Your task to perform on an android device: What's the news in Colombia? Image 0: 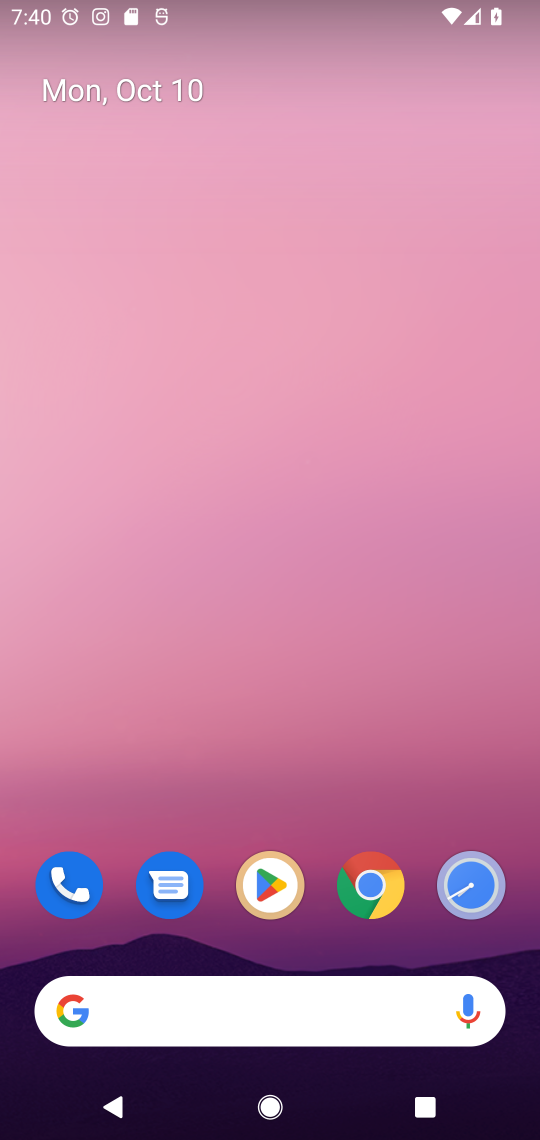
Step 0: click (365, 906)
Your task to perform on an android device: What's the news in Colombia? Image 1: 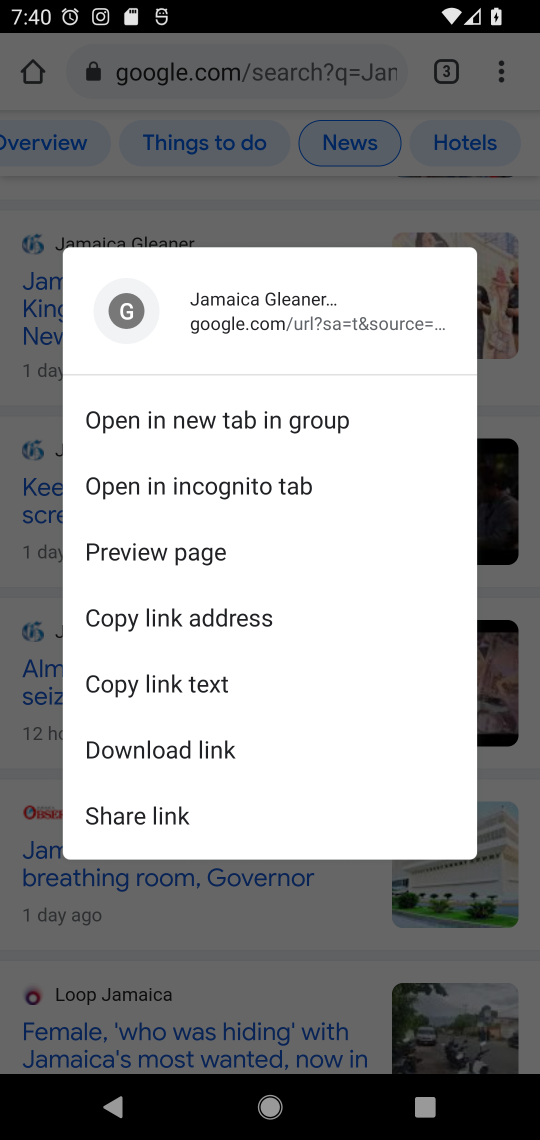
Step 1: click (281, 954)
Your task to perform on an android device: What's the news in Colombia? Image 2: 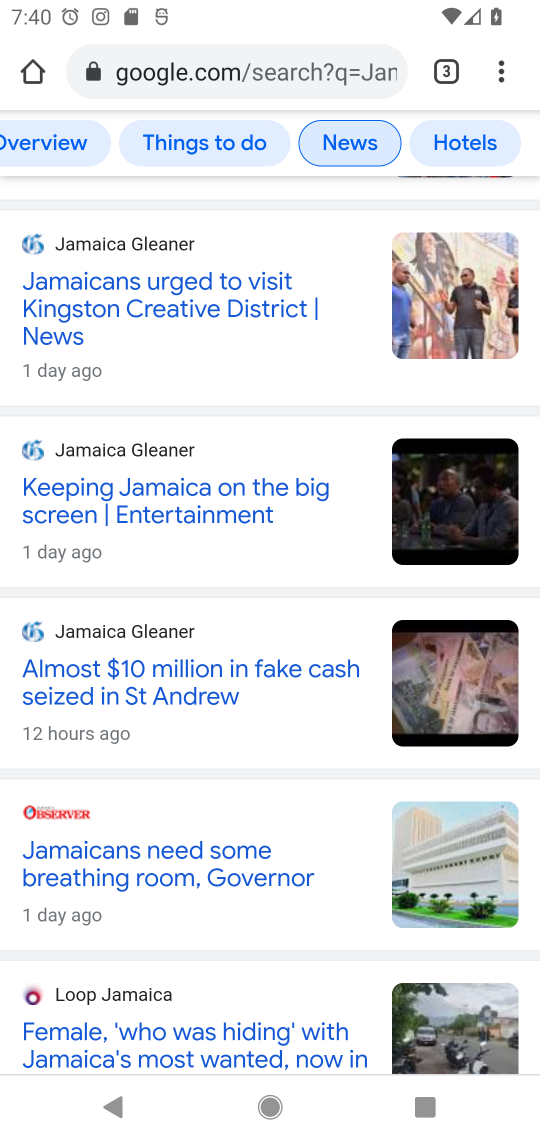
Step 2: click (225, 71)
Your task to perform on an android device: What's the news in Colombia? Image 3: 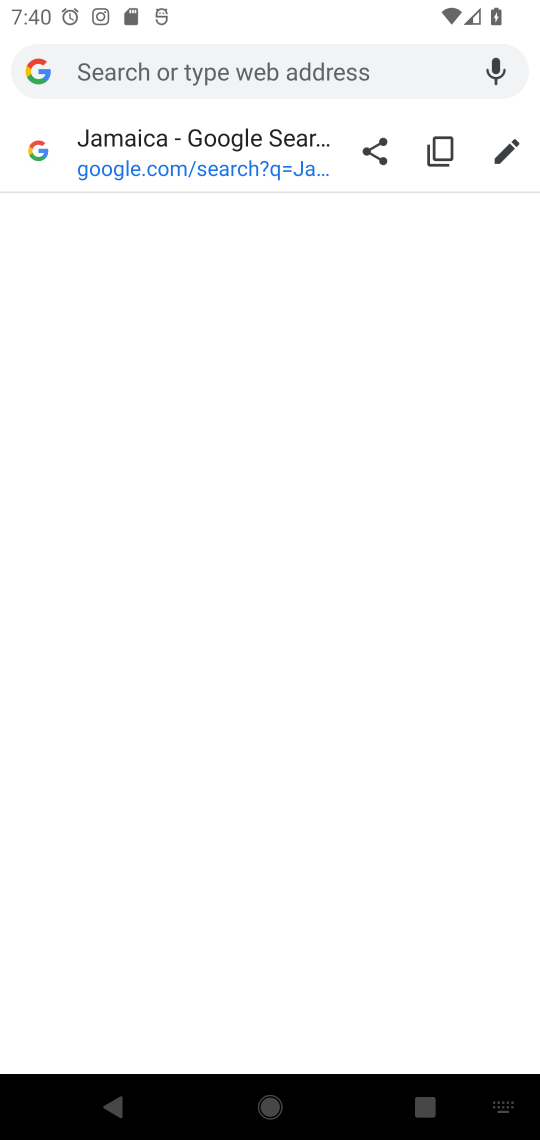
Step 3: type "Colombia"
Your task to perform on an android device: What's the news in Colombia? Image 4: 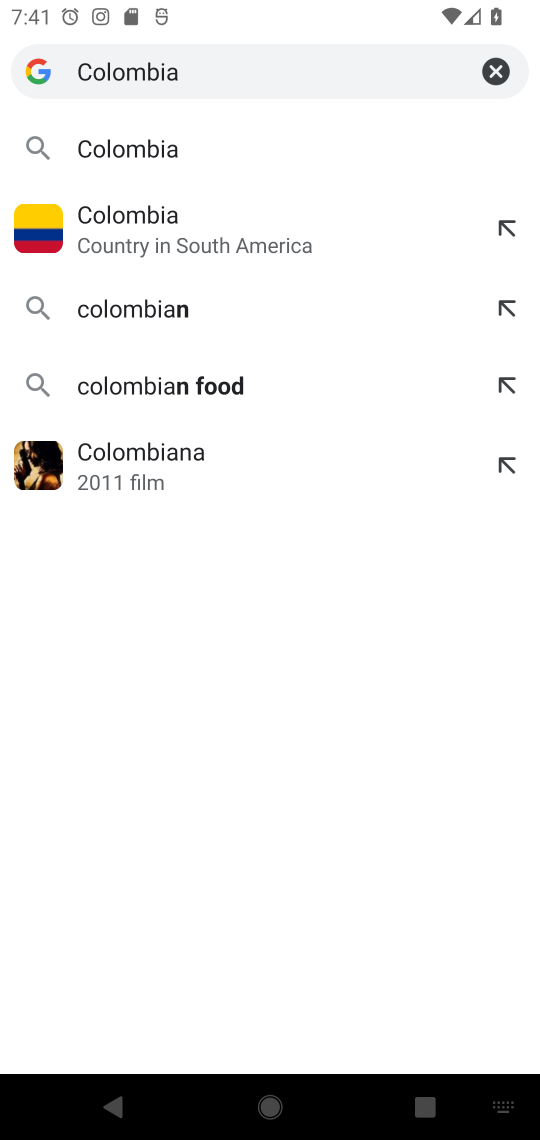
Step 4: click (204, 170)
Your task to perform on an android device: What's the news in Colombia? Image 5: 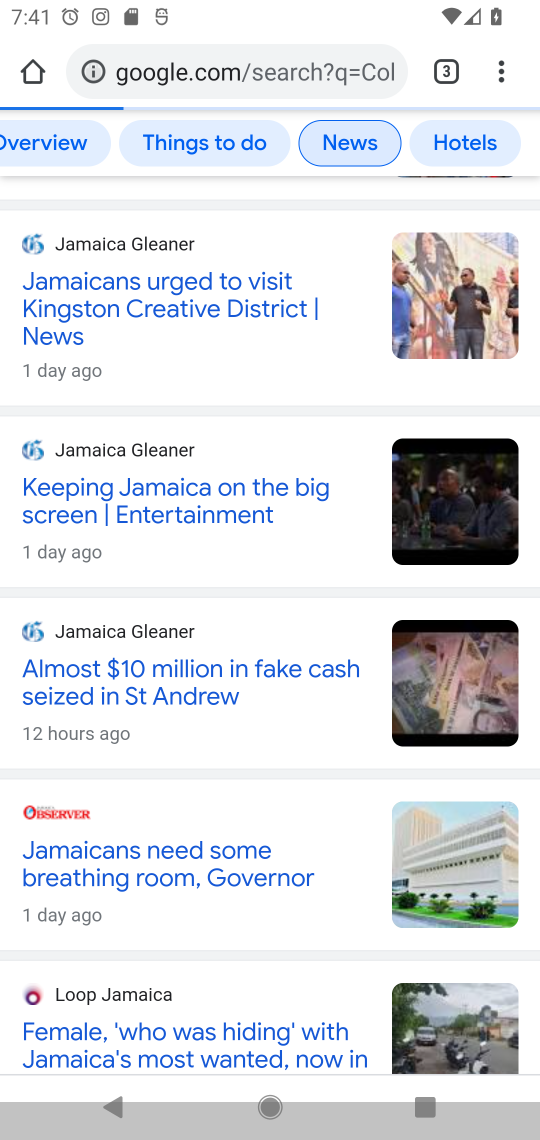
Step 5: click (100, 146)
Your task to perform on an android device: What's the news in Colombia? Image 6: 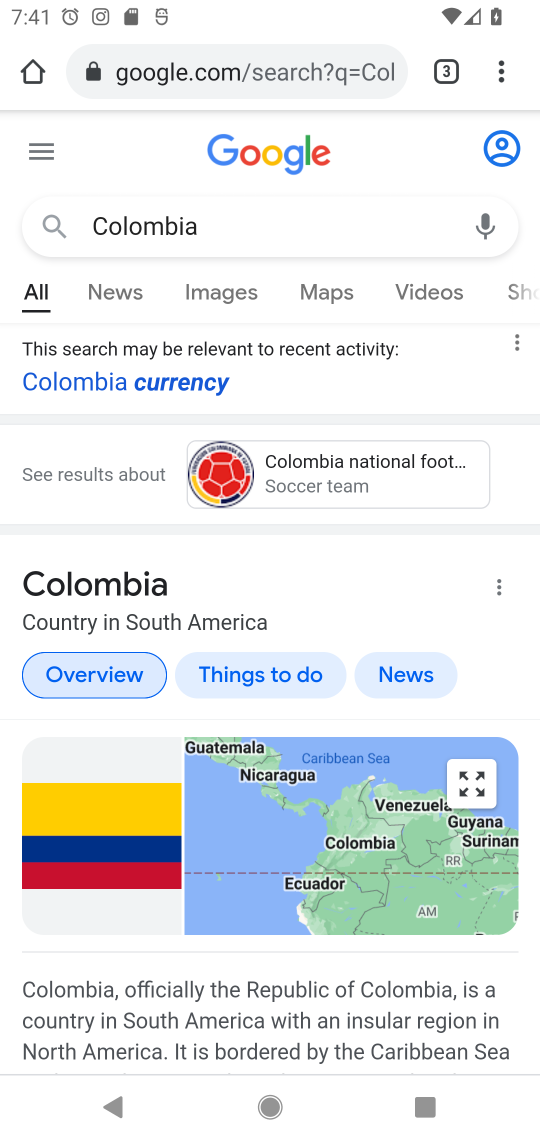
Step 6: click (112, 278)
Your task to perform on an android device: What's the news in Colombia? Image 7: 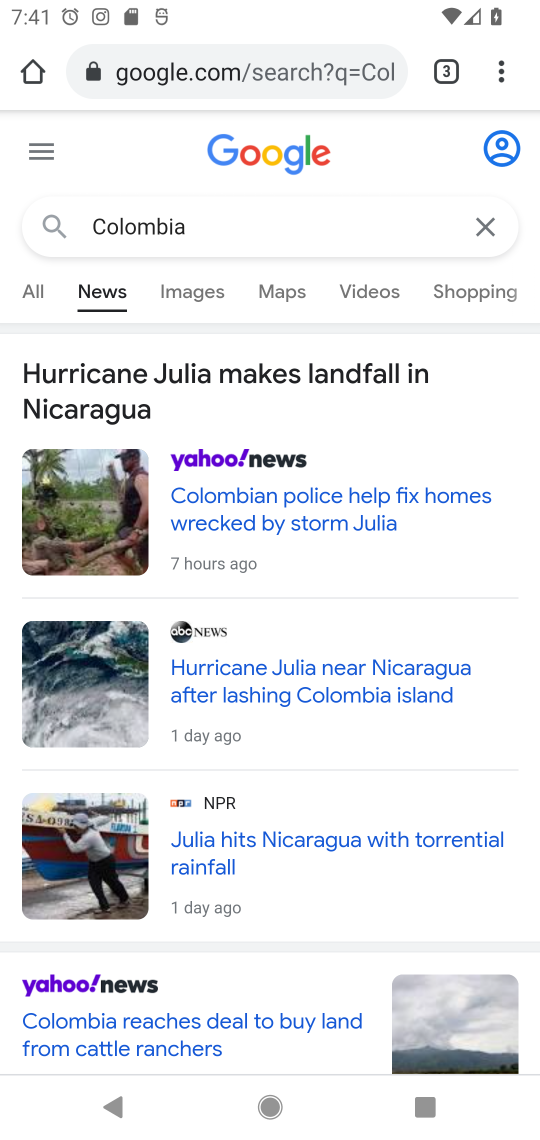
Step 7: task complete